Your task to perform on an android device: manage bookmarks in the chrome app Image 0: 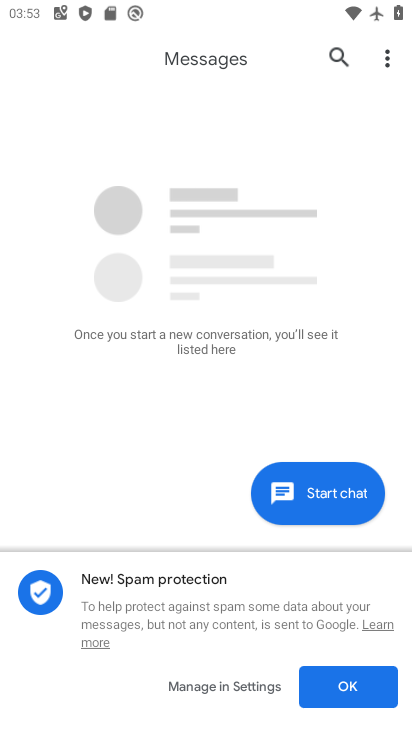
Step 0: press home button
Your task to perform on an android device: manage bookmarks in the chrome app Image 1: 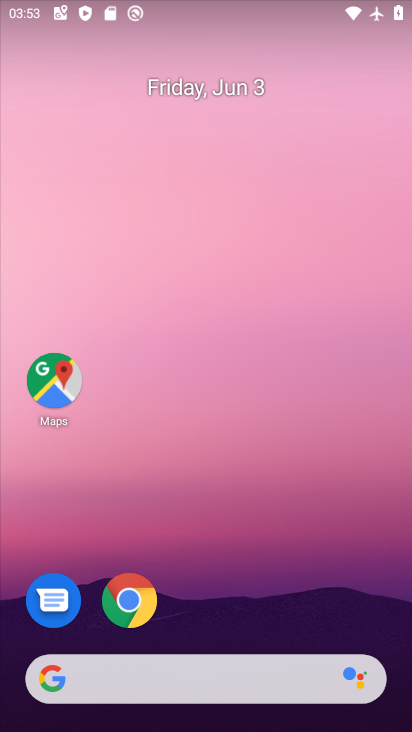
Step 1: click (140, 606)
Your task to perform on an android device: manage bookmarks in the chrome app Image 2: 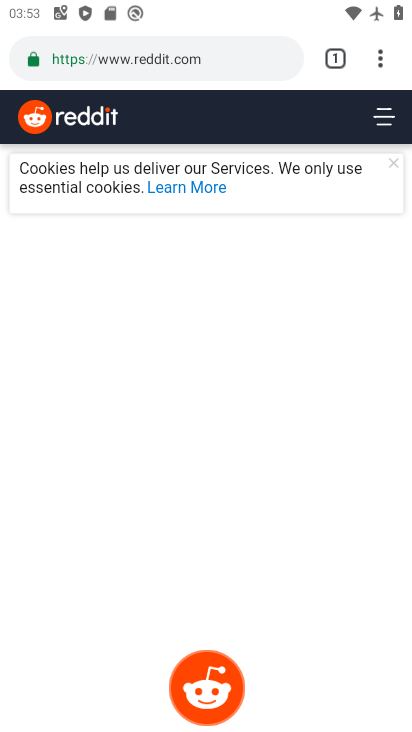
Step 2: click (385, 57)
Your task to perform on an android device: manage bookmarks in the chrome app Image 3: 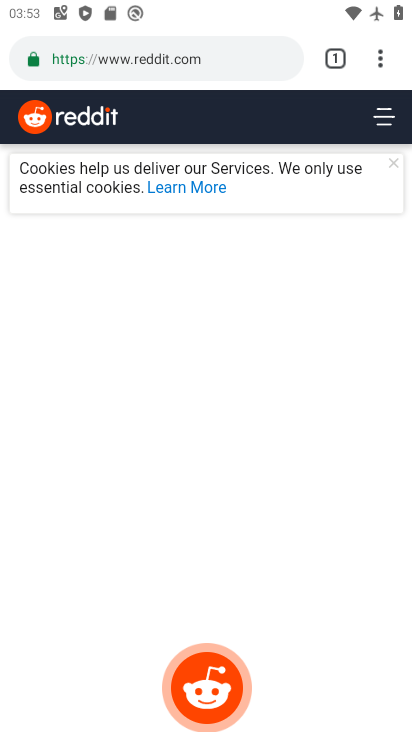
Step 3: click (374, 68)
Your task to perform on an android device: manage bookmarks in the chrome app Image 4: 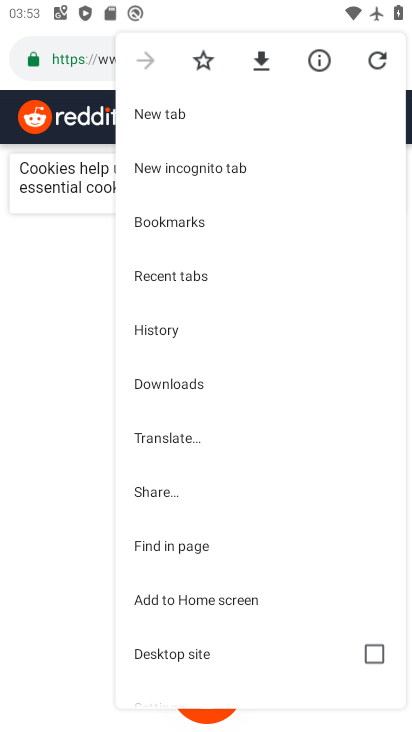
Step 4: drag from (192, 614) to (257, 211)
Your task to perform on an android device: manage bookmarks in the chrome app Image 5: 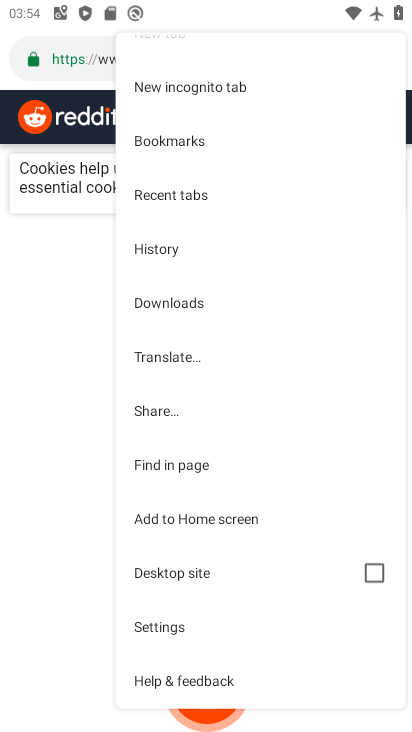
Step 5: click (175, 149)
Your task to perform on an android device: manage bookmarks in the chrome app Image 6: 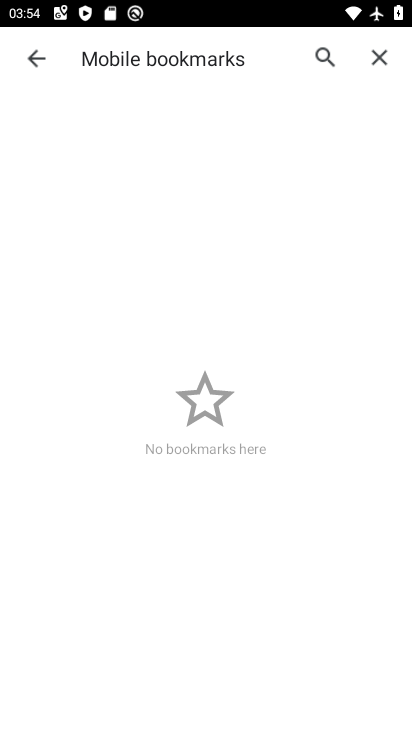
Step 6: task complete